Your task to perform on an android device: Open calendar and show me the fourth week of next month Image 0: 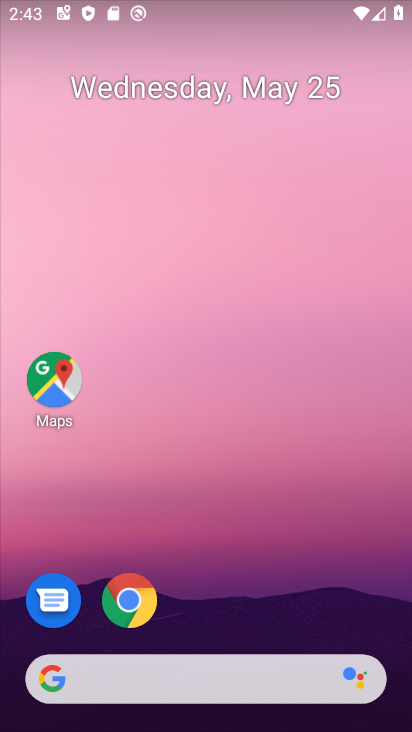
Step 0: press home button
Your task to perform on an android device: Open calendar and show me the fourth week of next month Image 1: 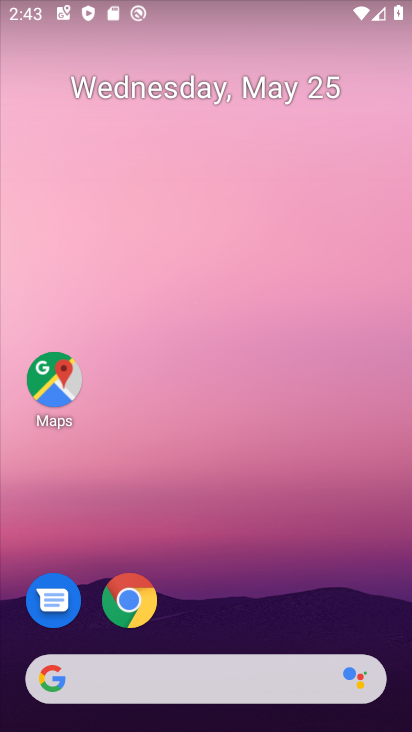
Step 1: drag from (46, 554) to (305, 126)
Your task to perform on an android device: Open calendar and show me the fourth week of next month Image 2: 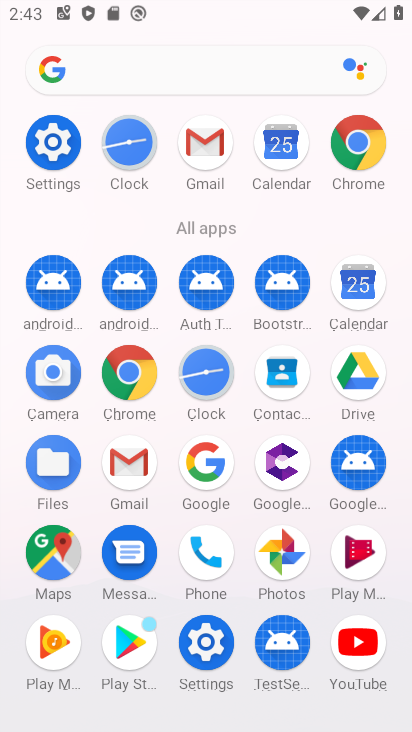
Step 2: click (349, 280)
Your task to perform on an android device: Open calendar and show me the fourth week of next month Image 3: 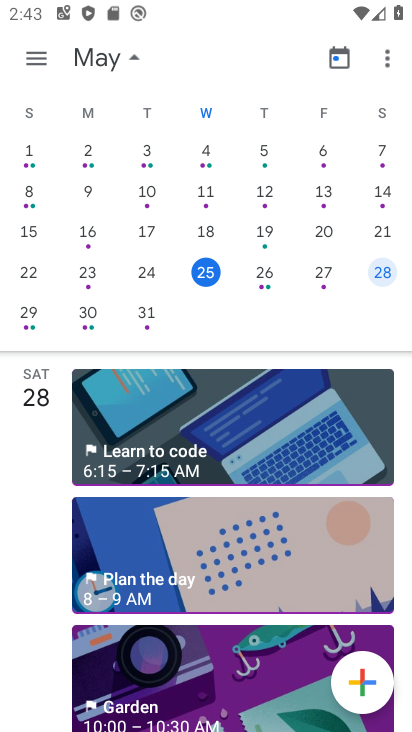
Step 3: drag from (311, 258) to (1, 173)
Your task to perform on an android device: Open calendar and show me the fourth week of next month Image 4: 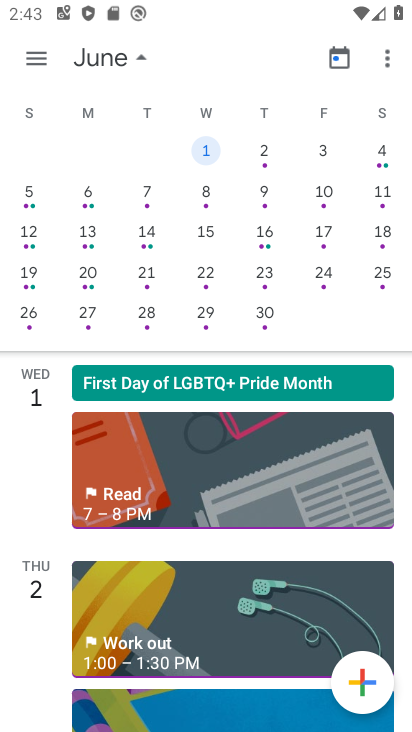
Step 4: click (202, 200)
Your task to perform on an android device: Open calendar and show me the fourth week of next month Image 5: 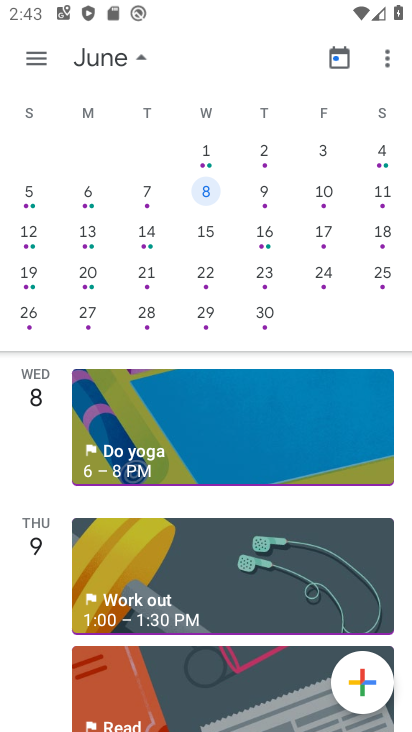
Step 5: click (213, 226)
Your task to perform on an android device: Open calendar and show me the fourth week of next month Image 6: 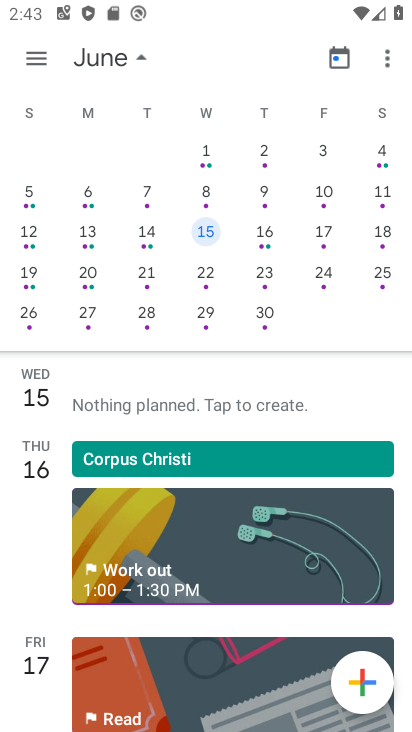
Step 6: click (206, 277)
Your task to perform on an android device: Open calendar and show me the fourth week of next month Image 7: 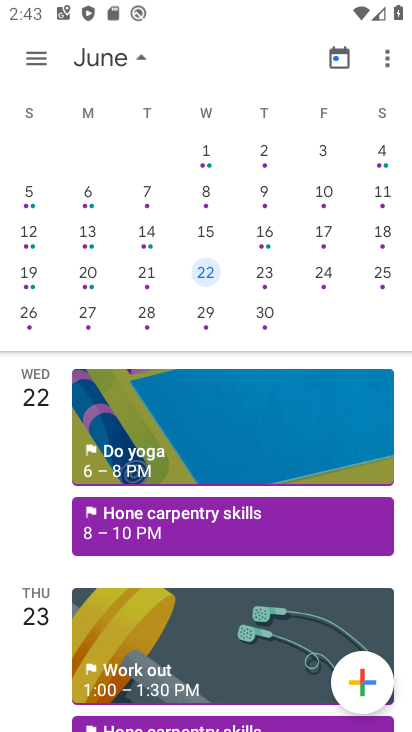
Step 7: task complete